Your task to perform on an android device: Open Amazon Image 0: 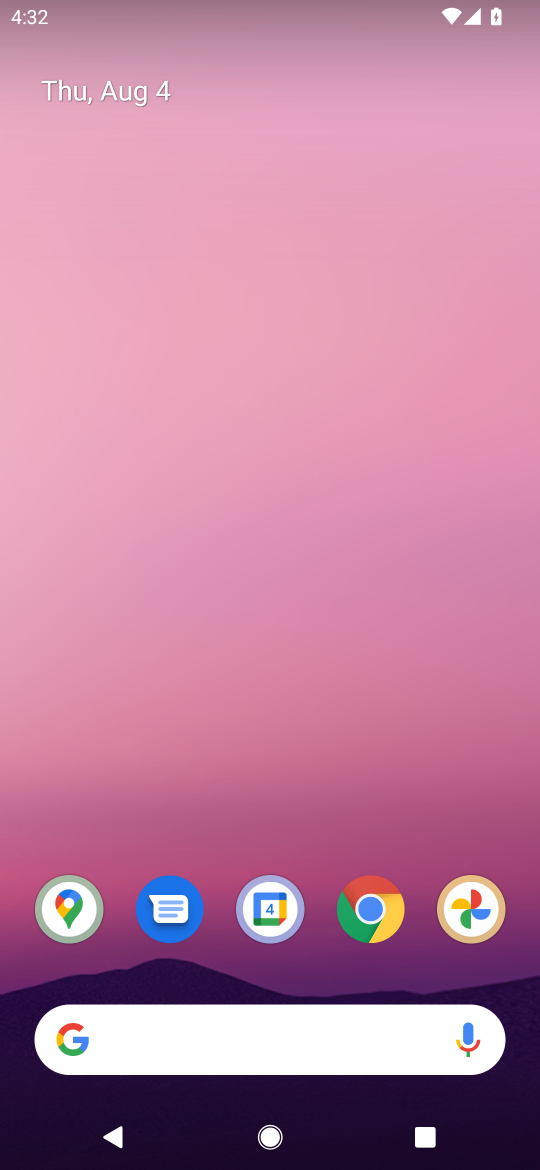
Step 0: press home button
Your task to perform on an android device: Open Amazon Image 1: 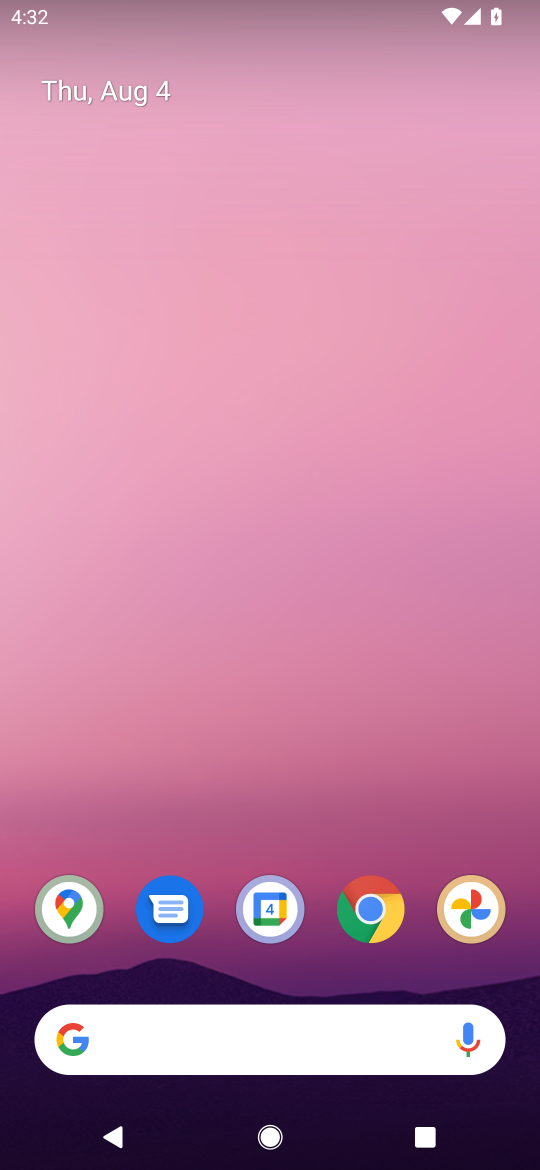
Step 1: press home button
Your task to perform on an android device: Open Amazon Image 2: 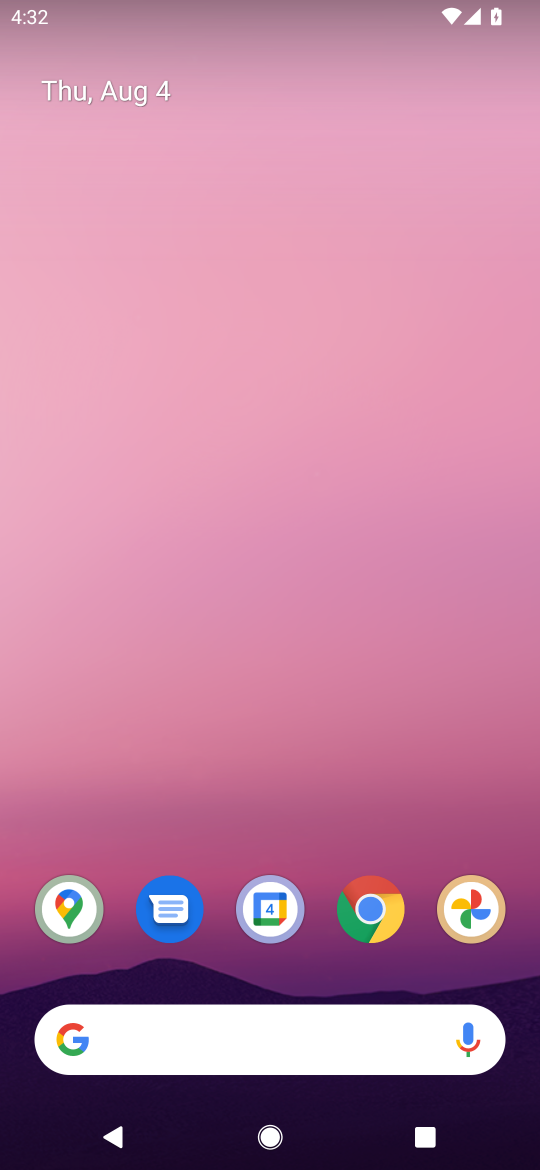
Step 2: drag from (436, 809) to (341, 58)
Your task to perform on an android device: Open Amazon Image 3: 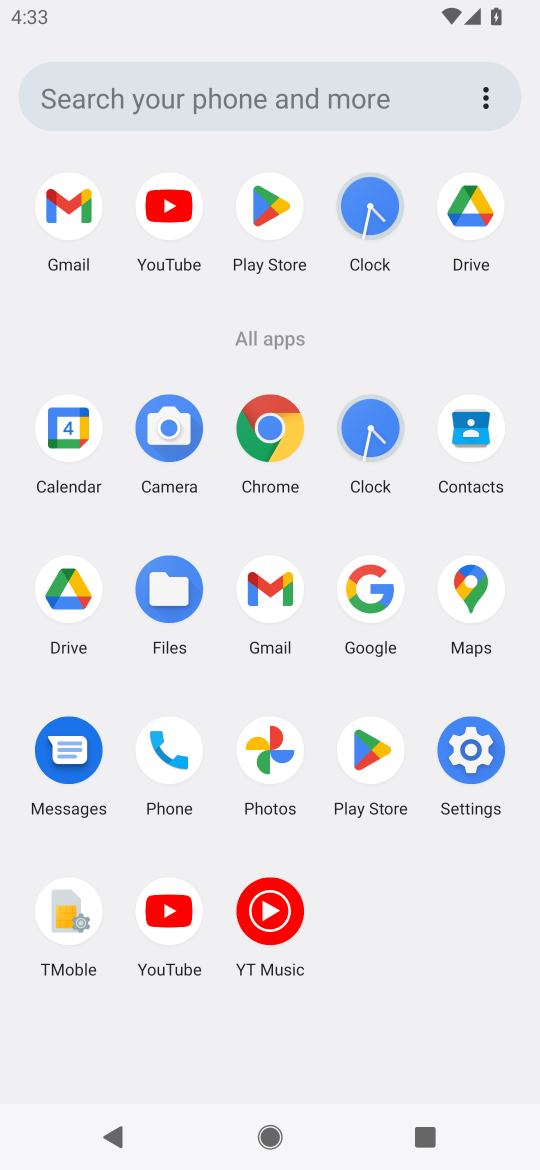
Step 3: click (373, 586)
Your task to perform on an android device: Open Amazon Image 4: 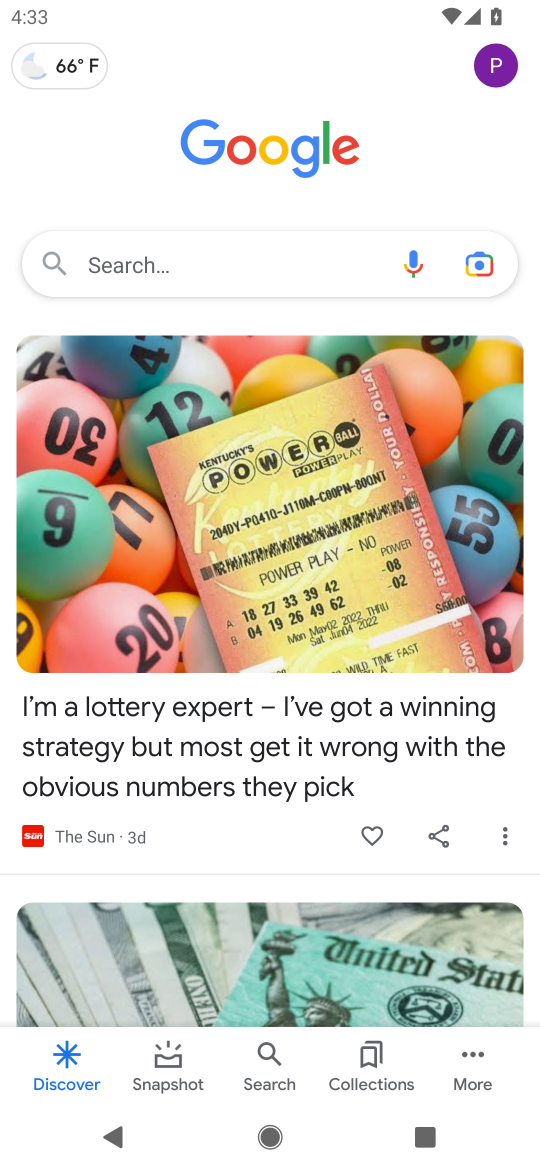
Step 4: click (111, 255)
Your task to perform on an android device: Open Amazon Image 5: 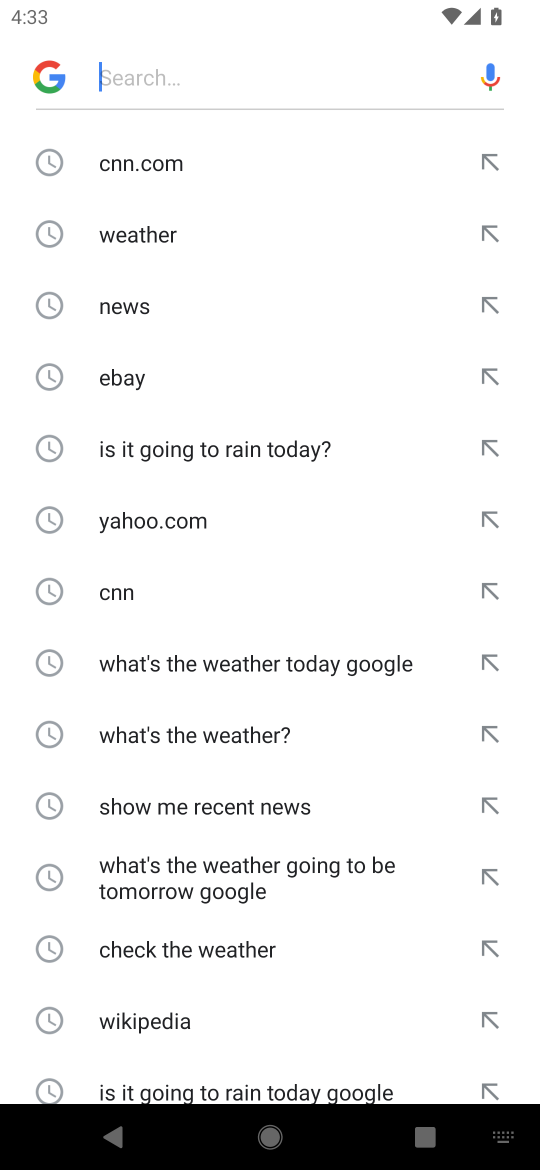
Step 5: type "Amazon"
Your task to perform on an android device: Open Amazon Image 6: 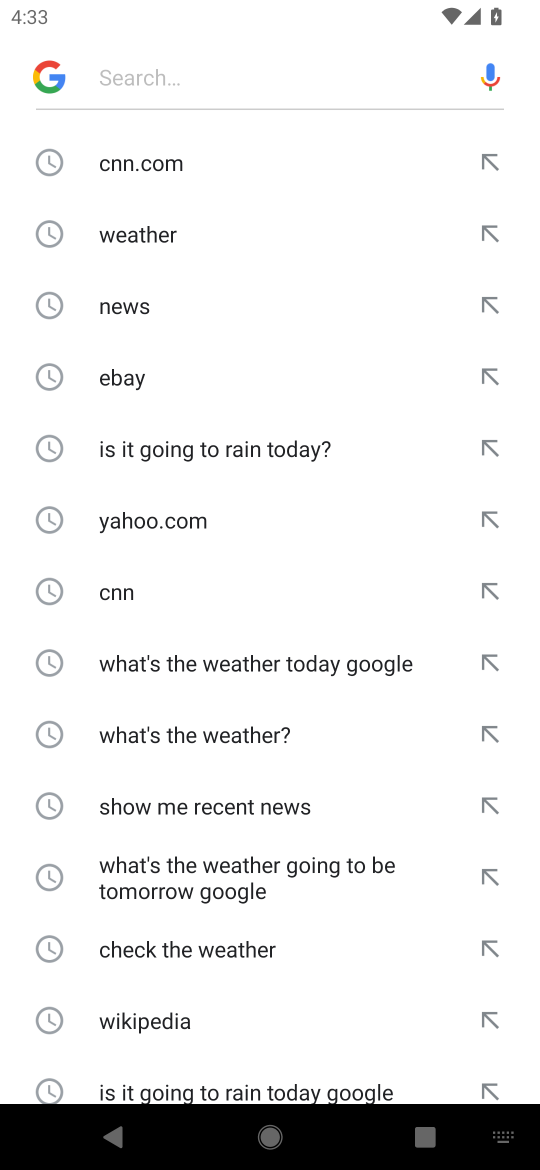
Step 6: click (141, 76)
Your task to perform on an android device: Open Amazon Image 7: 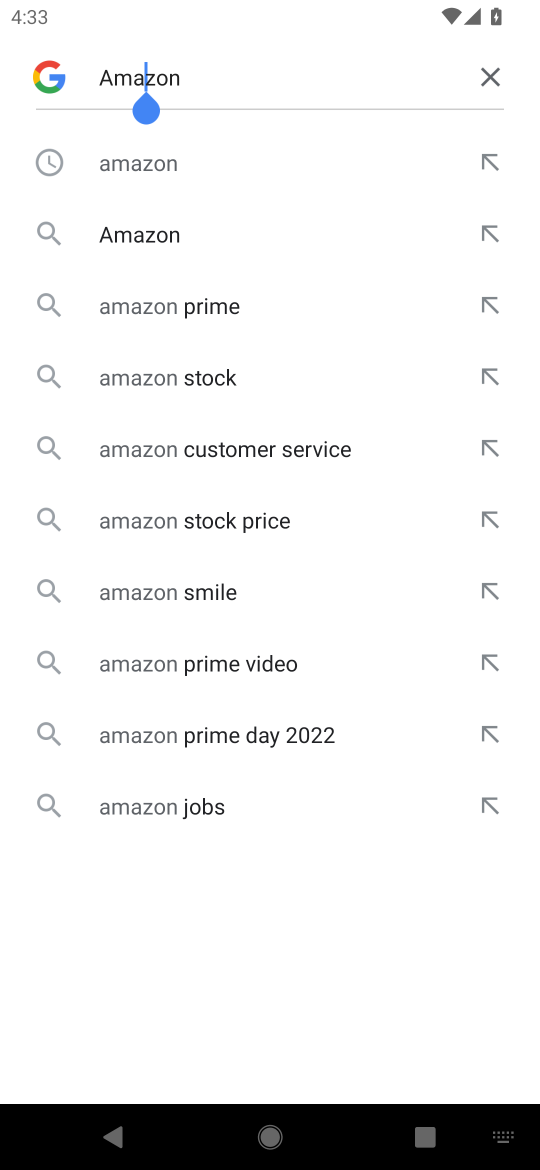
Step 7: press enter
Your task to perform on an android device: Open Amazon Image 8: 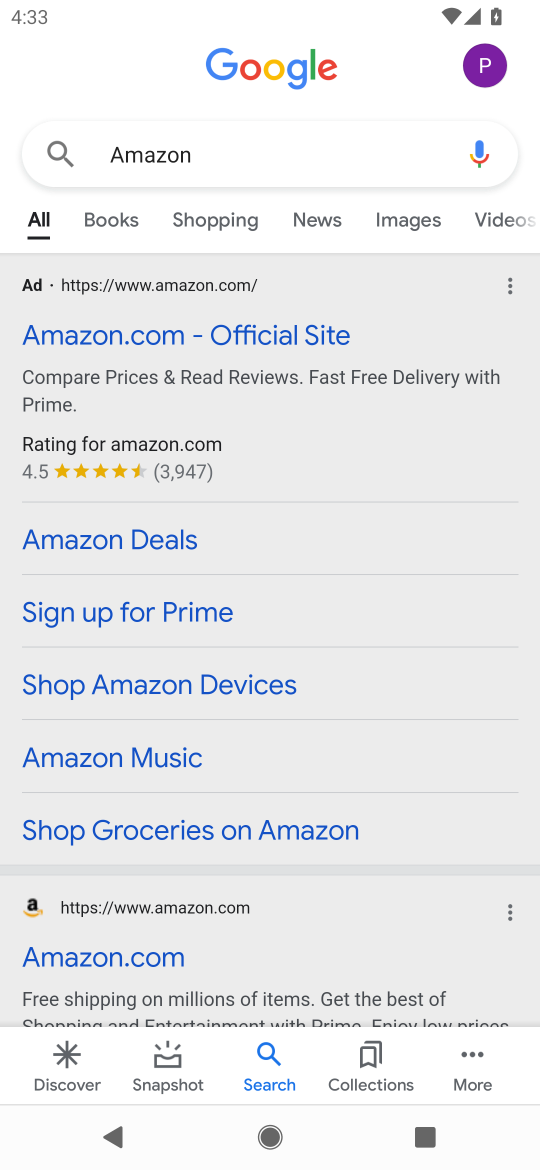
Step 8: drag from (362, 951) to (295, 690)
Your task to perform on an android device: Open Amazon Image 9: 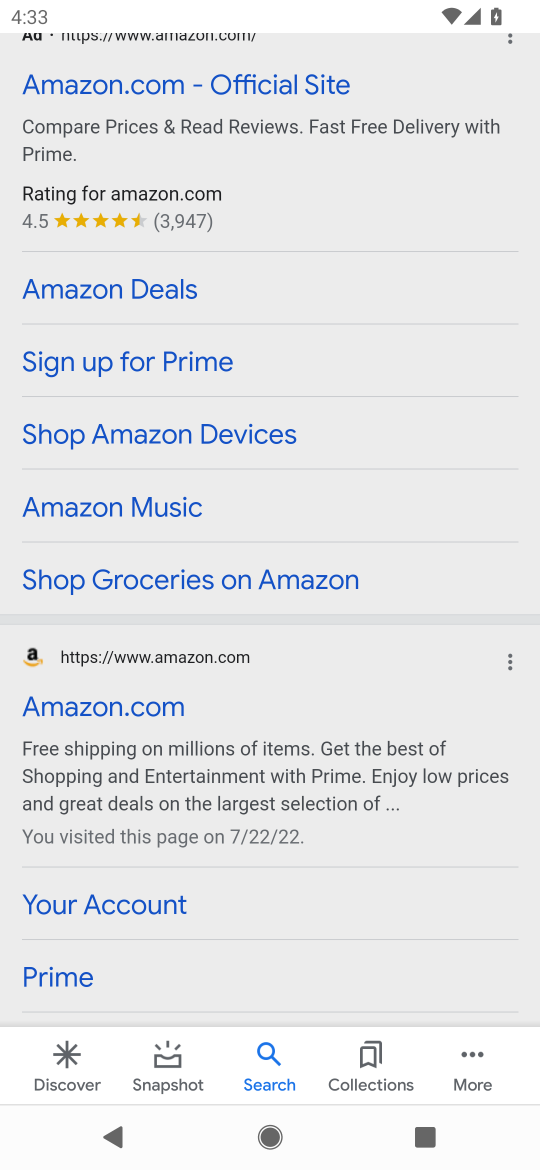
Step 9: click (109, 710)
Your task to perform on an android device: Open Amazon Image 10: 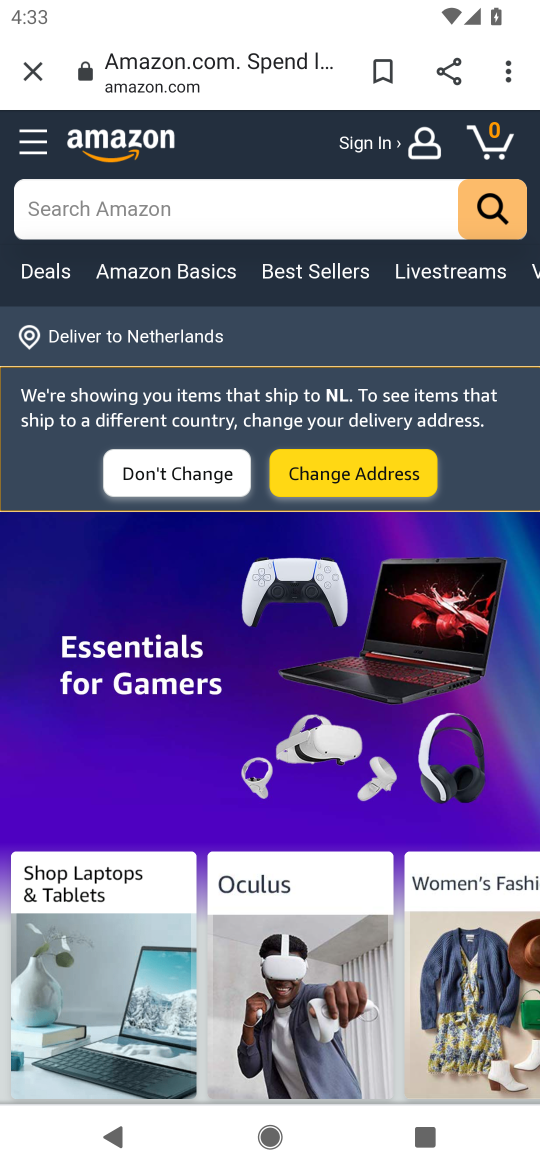
Step 10: task complete